Your task to perform on an android device: toggle notifications settings in the gmail app Image 0: 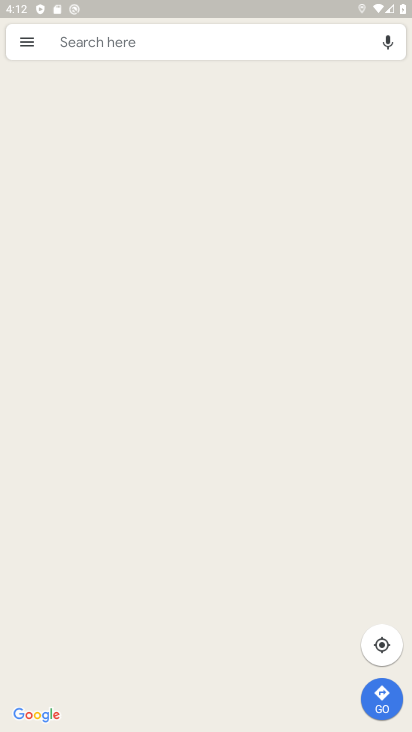
Step 0: press home button
Your task to perform on an android device: toggle notifications settings in the gmail app Image 1: 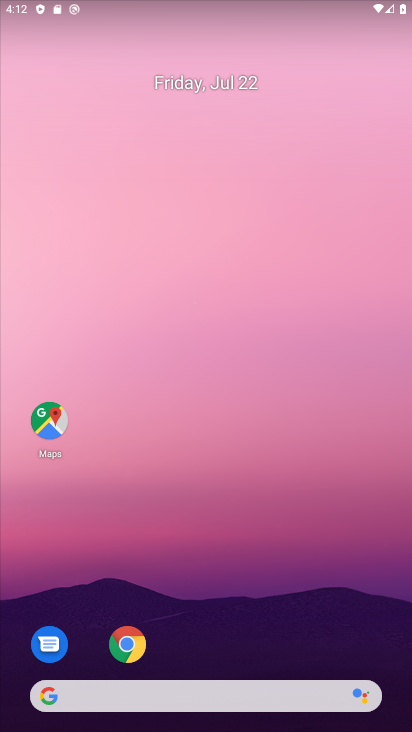
Step 1: drag from (211, 649) to (239, 74)
Your task to perform on an android device: toggle notifications settings in the gmail app Image 2: 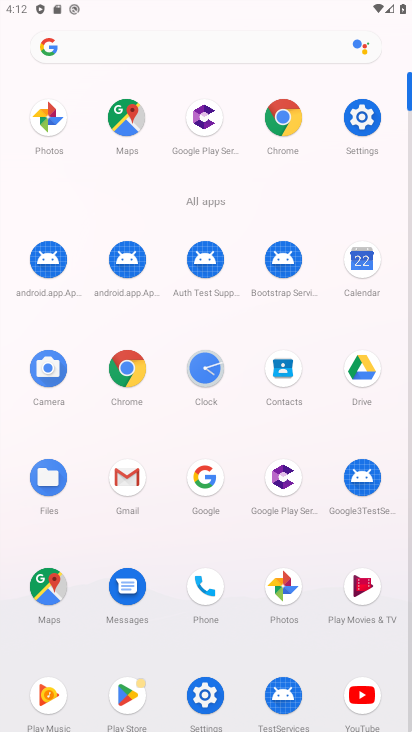
Step 2: click (126, 477)
Your task to perform on an android device: toggle notifications settings in the gmail app Image 3: 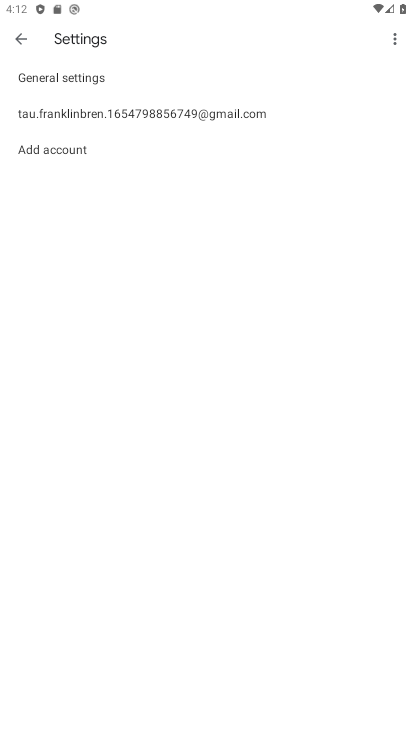
Step 3: click (199, 118)
Your task to perform on an android device: toggle notifications settings in the gmail app Image 4: 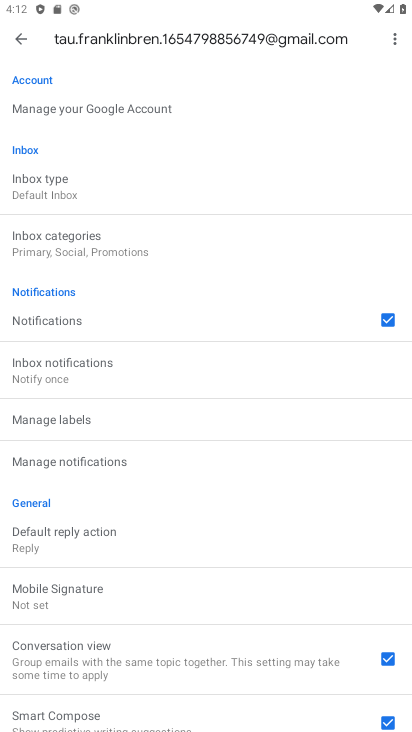
Step 4: click (73, 331)
Your task to perform on an android device: toggle notifications settings in the gmail app Image 5: 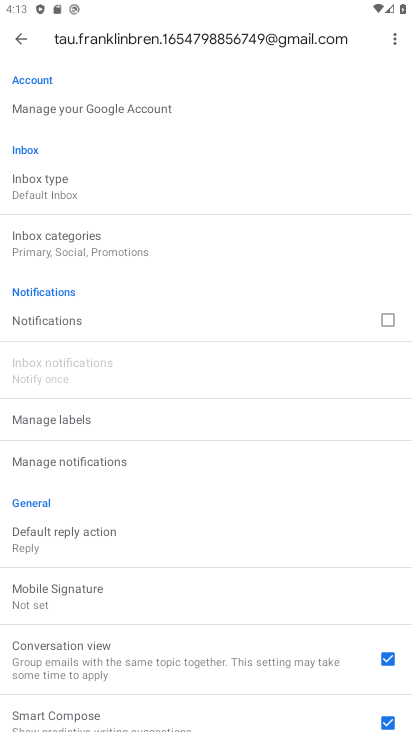
Step 5: task complete